Your task to perform on an android device: Find coffee shops on Maps Image 0: 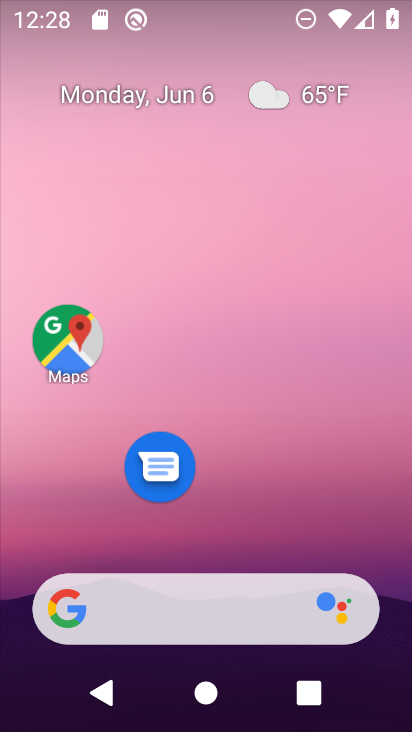
Step 0: drag from (371, 510) to (379, 117)
Your task to perform on an android device: Find coffee shops on Maps Image 1: 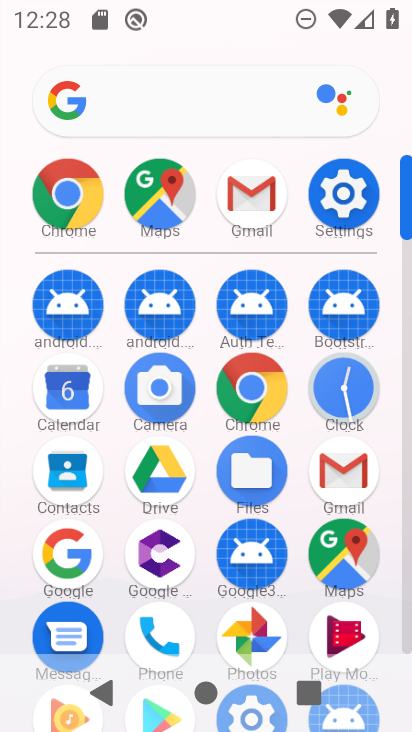
Step 1: click (274, 399)
Your task to perform on an android device: Find coffee shops on Maps Image 2: 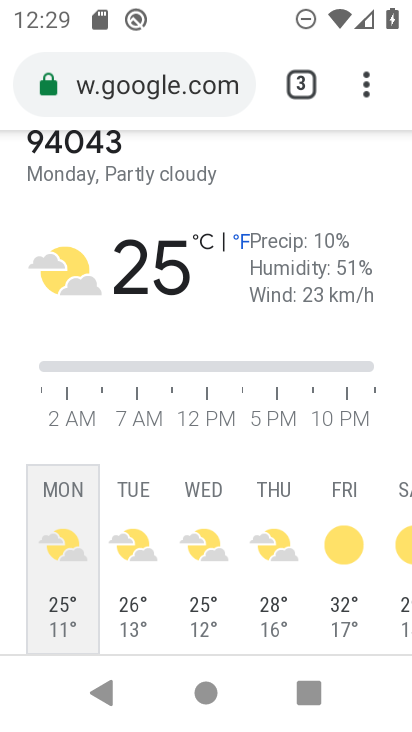
Step 2: drag from (362, 74) to (410, 22)
Your task to perform on an android device: Find coffee shops on Maps Image 3: 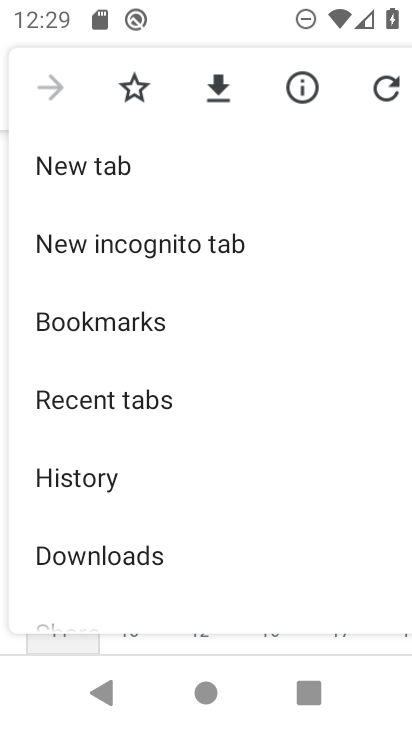
Step 3: press home button
Your task to perform on an android device: Find coffee shops on Maps Image 4: 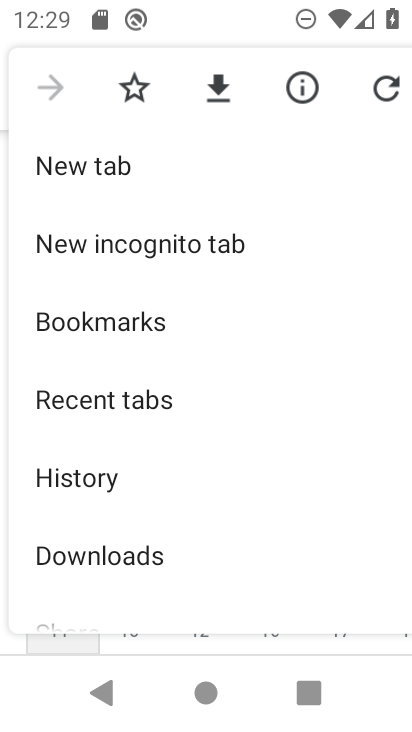
Step 4: drag from (410, 22) to (389, 289)
Your task to perform on an android device: Find coffee shops on Maps Image 5: 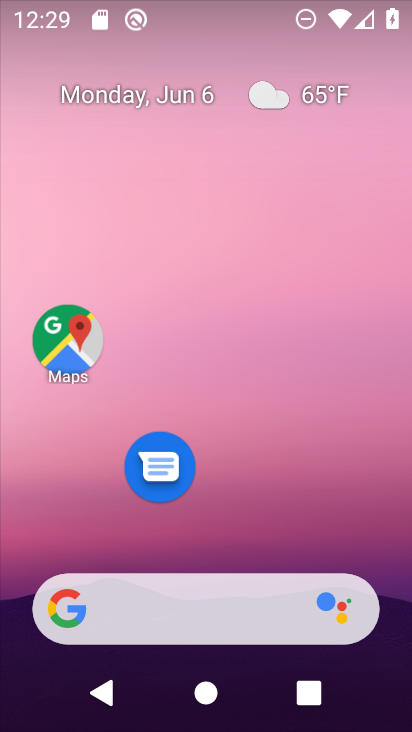
Step 5: drag from (371, 709) to (205, 185)
Your task to perform on an android device: Find coffee shops on Maps Image 6: 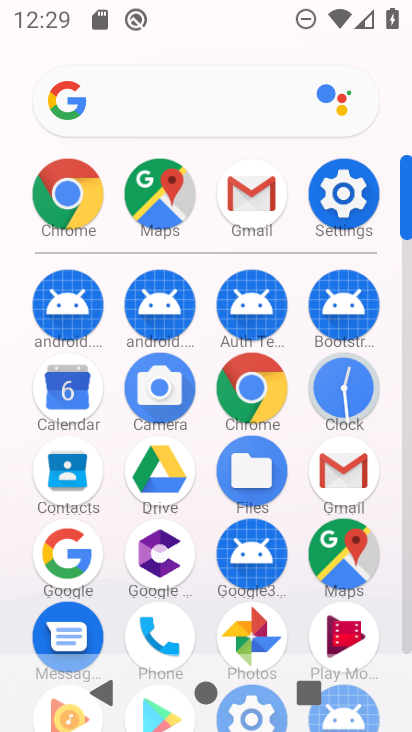
Step 6: click (169, 218)
Your task to perform on an android device: Find coffee shops on Maps Image 7: 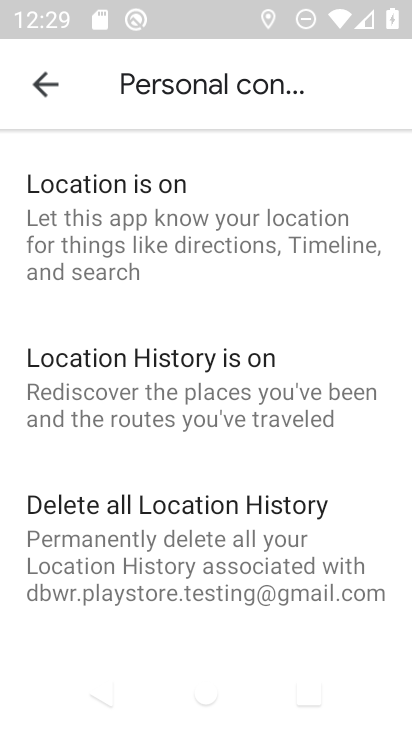
Step 7: click (51, 87)
Your task to perform on an android device: Find coffee shops on Maps Image 8: 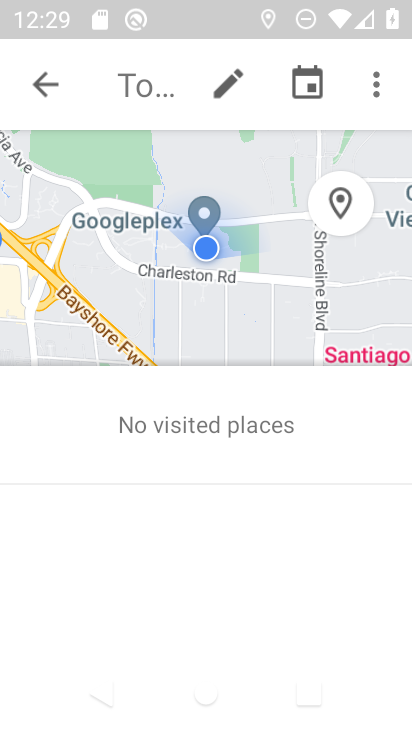
Step 8: click (51, 87)
Your task to perform on an android device: Find coffee shops on Maps Image 9: 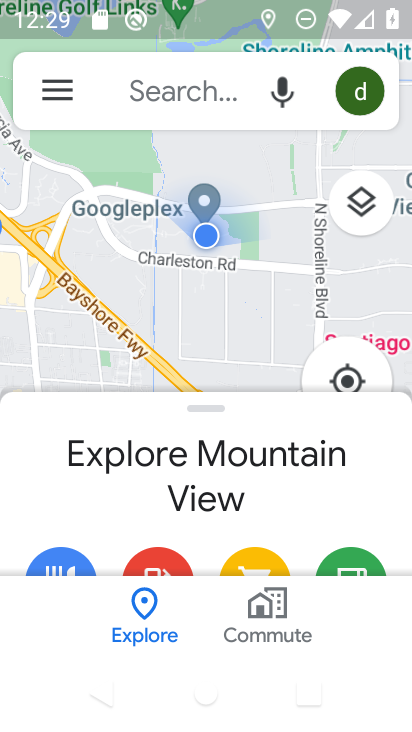
Step 9: click (212, 96)
Your task to perform on an android device: Find coffee shops on Maps Image 10: 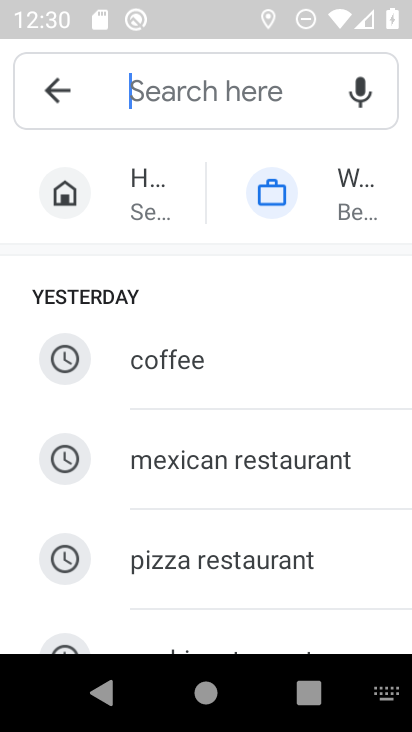
Step 10: type " coffee shops "
Your task to perform on an android device: Find coffee shops on Maps Image 11: 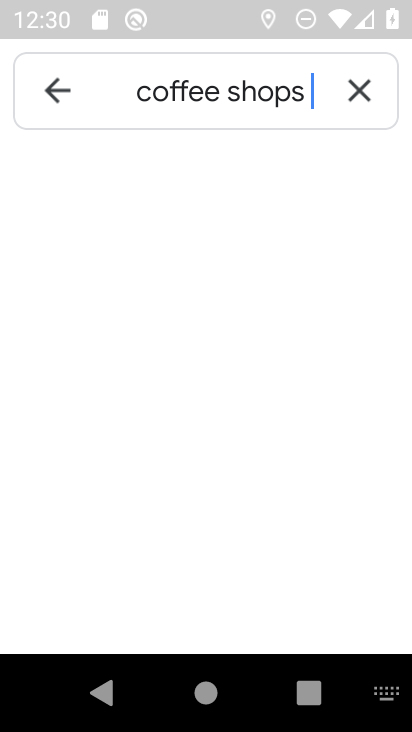
Step 11: type ""
Your task to perform on an android device: Find coffee shops on Maps Image 12: 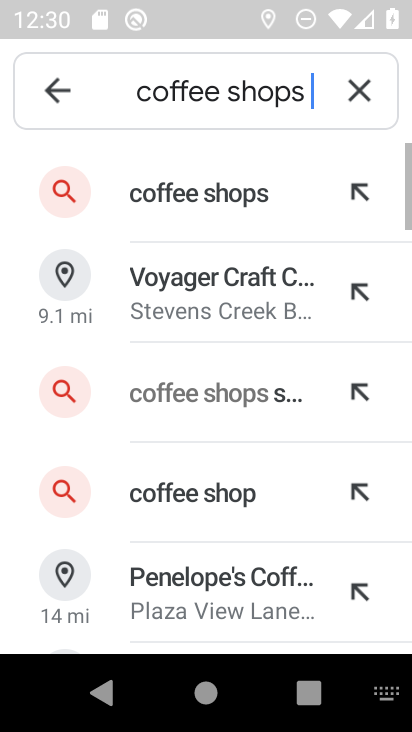
Step 12: click (209, 205)
Your task to perform on an android device: Find coffee shops on Maps Image 13: 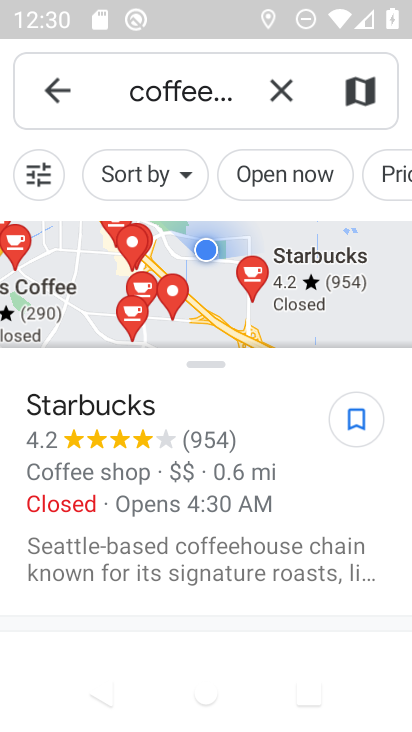
Step 13: task complete